Your task to perform on an android device: turn off airplane mode Image 0: 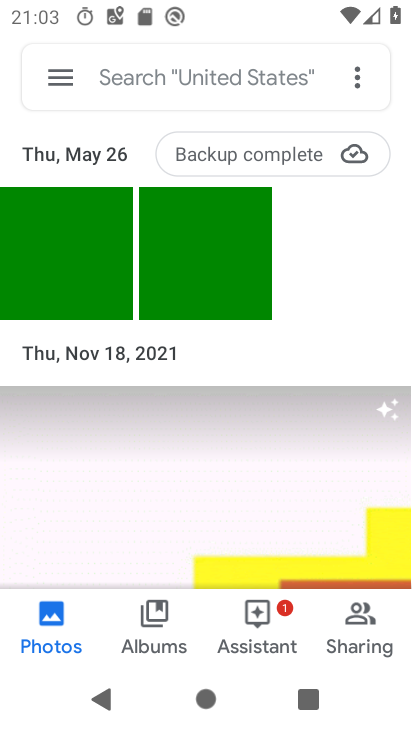
Step 0: press home button
Your task to perform on an android device: turn off airplane mode Image 1: 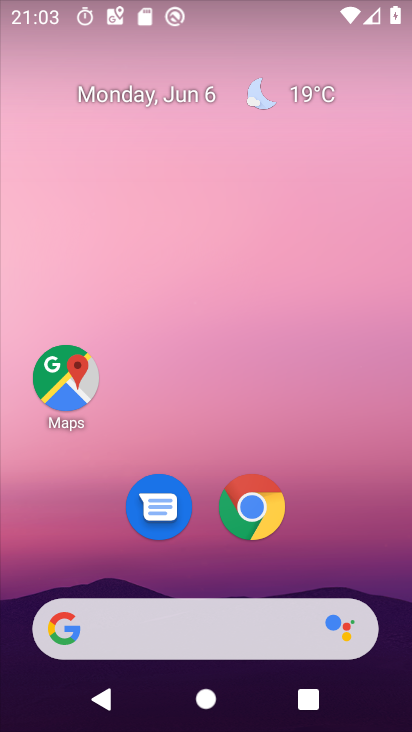
Step 1: task complete